Your task to perform on an android device: turn off translation in the chrome app Image 0: 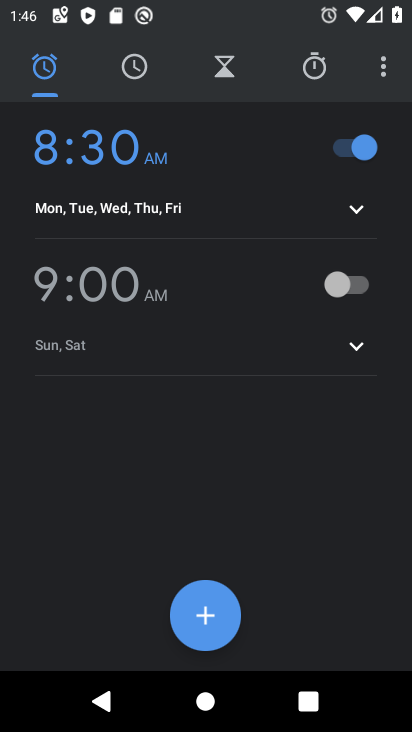
Step 0: press home button
Your task to perform on an android device: turn off translation in the chrome app Image 1: 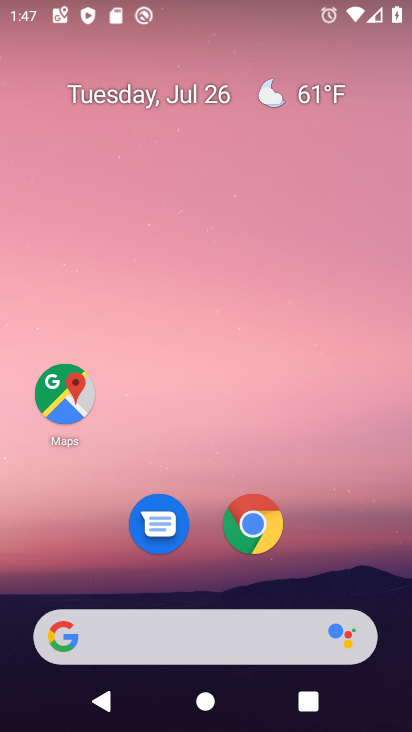
Step 1: click (241, 529)
Your task to perform on an android device: turn off translation in the chrome app Image 2: 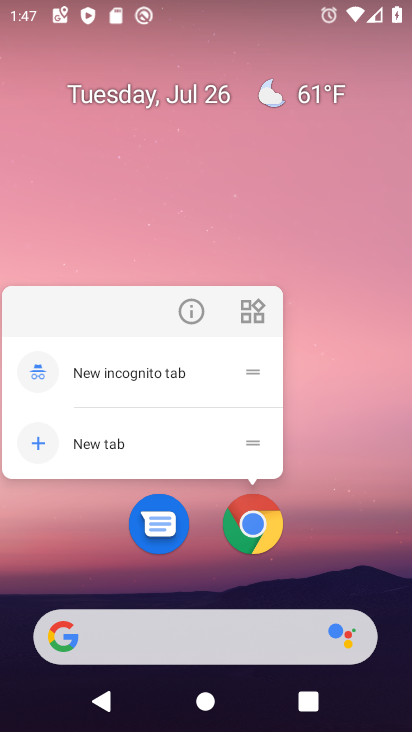
Step 2: click (254, 517)
Your task to perform on an android device: turn off translation in the chrome app Image 3: 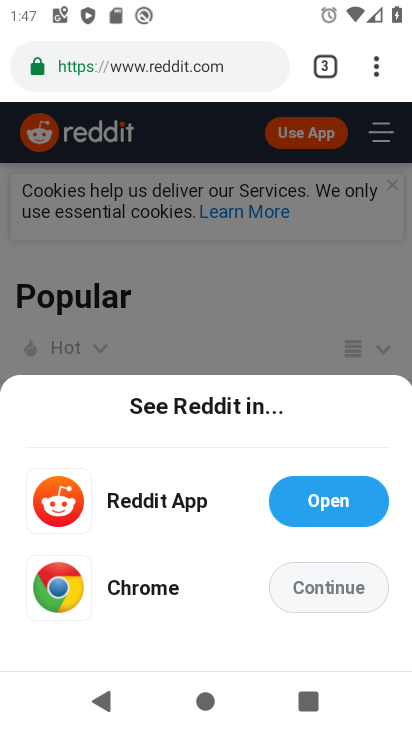
Step 3: drag from (377, 68) to (193, 530)
Your task to perform on an android device: turn off translation in the chrome app Image 4: 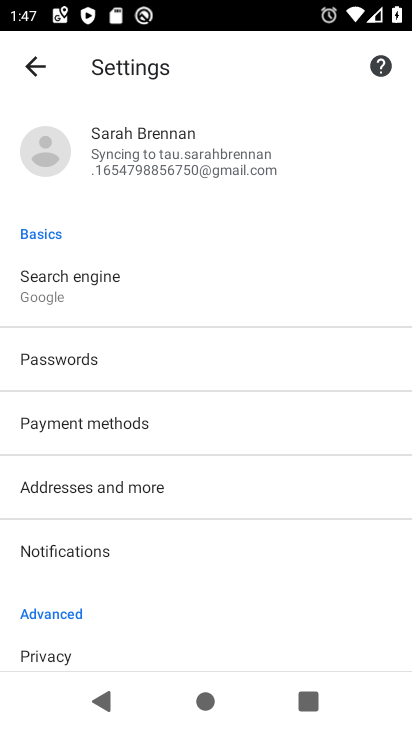
Step 4: drag from (141, 586) to (231, 372)
Your task to perform on an android device: turn off translation in the chrome app Image 5: 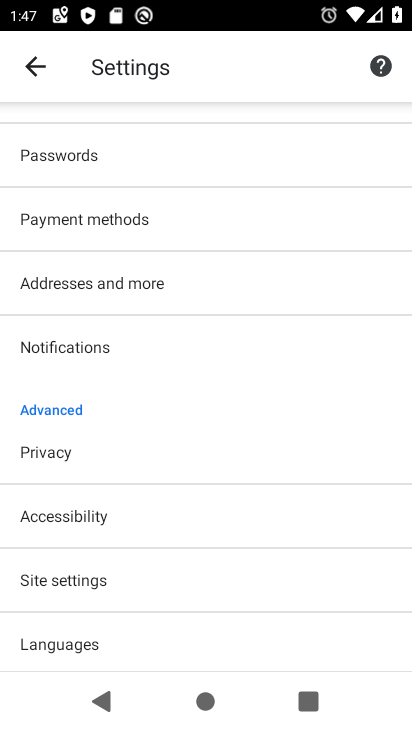
Step 5: drag from (171, 607) to (244, 336)
Your task to perform on an android device: turn off translation in the chrome app Image 6: 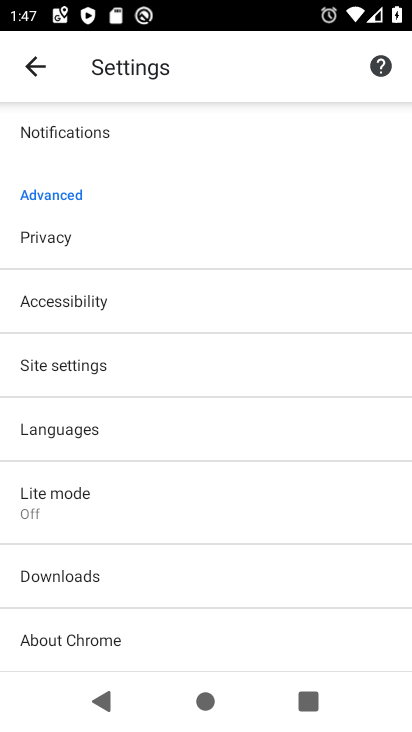
Step 6: click (60, 433)
Your task to perform on an android device: turn off translation in the chrome app Image 7: 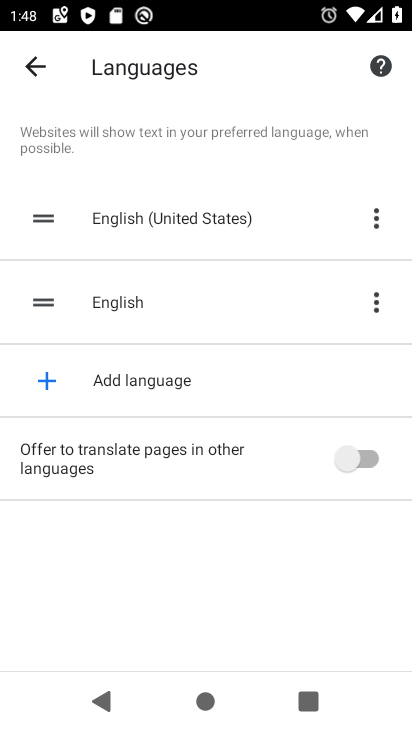
Step 7: task complete